Your task to perform on an android device: change text size in settings app Image 0: 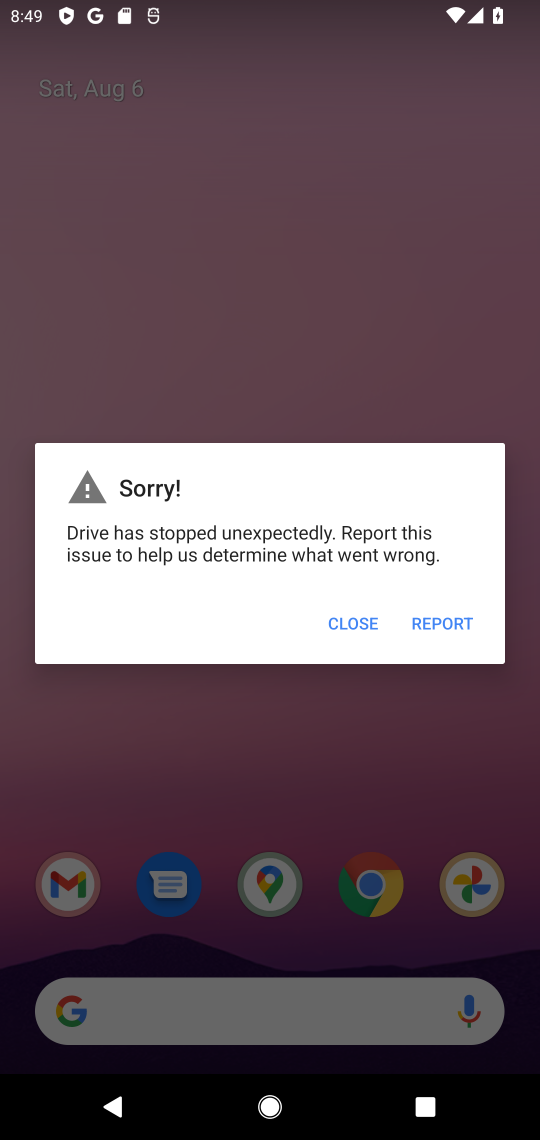
Step 0: press home button
Your task to perform on an android device: change text size in settings app Image 1: 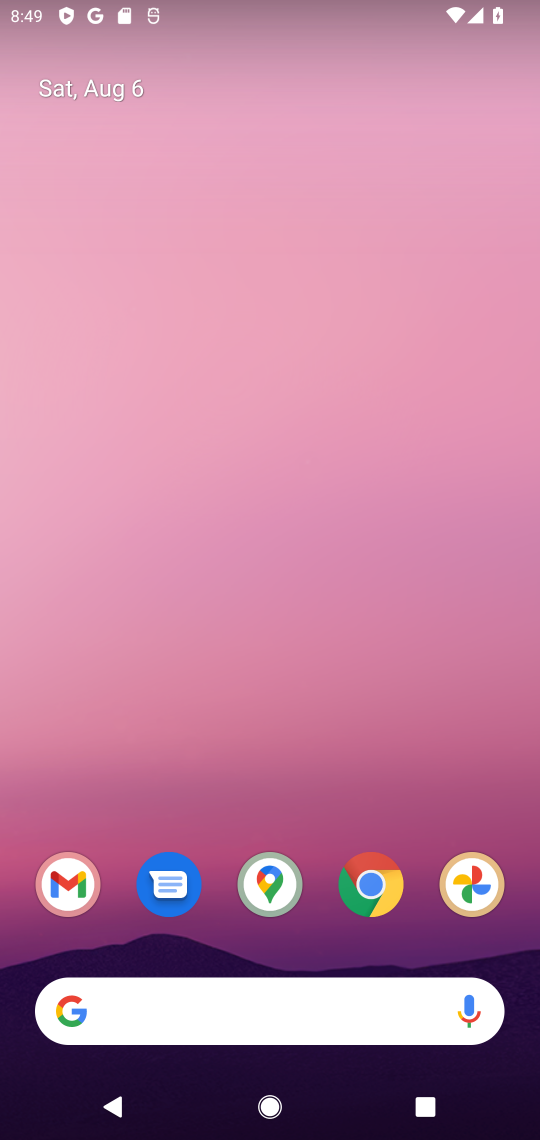
Step 1: drag from (398, 948) to (363, 99)
Your task to perform on an android device: change text size in settings app Image 2: 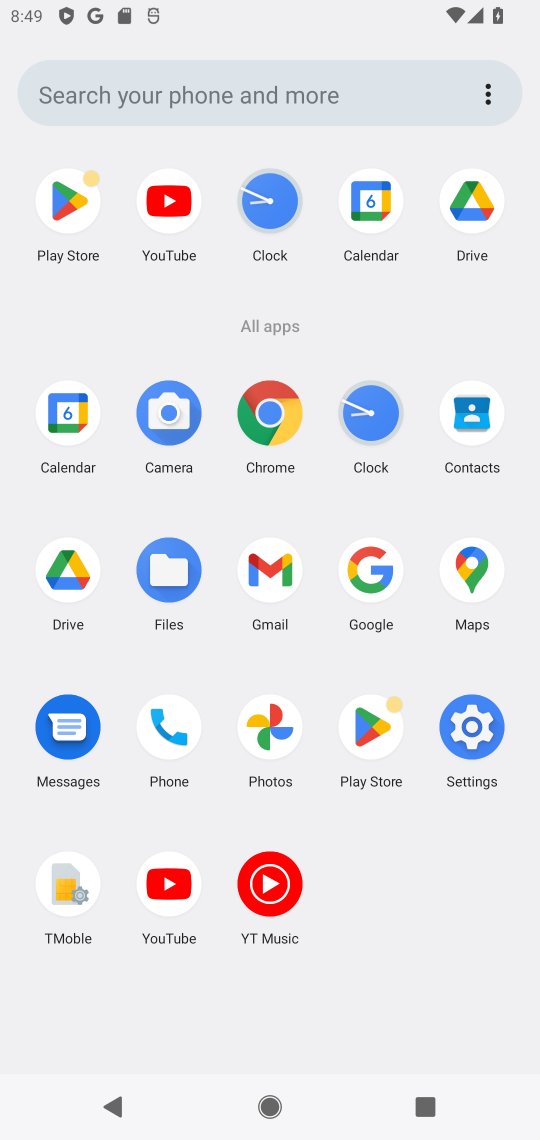
Step 2: click (472, 726)
Your task to perform on an android device: change text size in settings app Image 3: 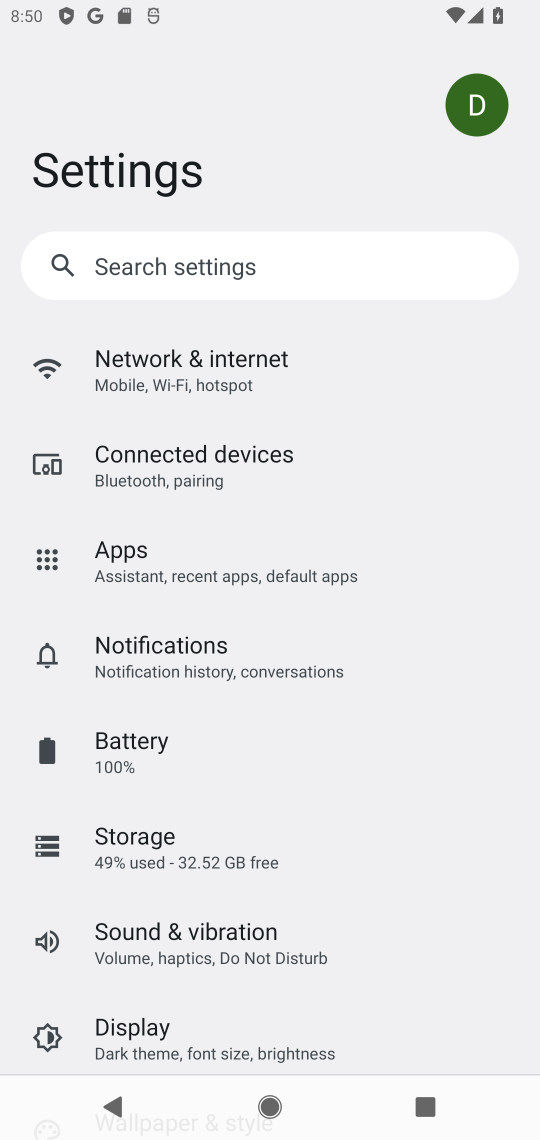
Step 3: drag from (379, 992) to (352, 552)
Your task to perform on an android device: change text size in settings app Image 4: 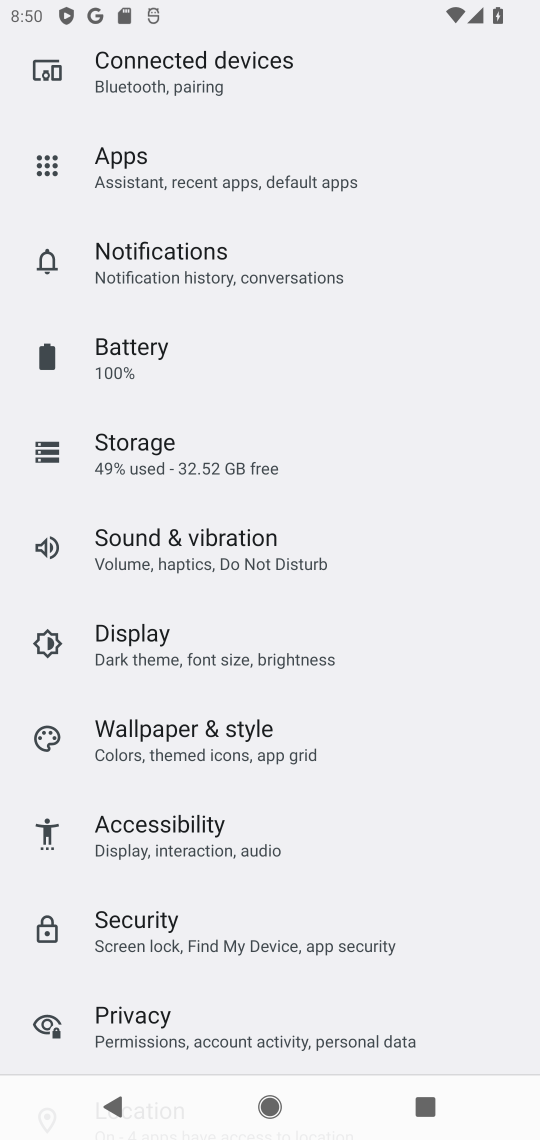
Step 4: click (164, 640)
Your task to perform on an android device: change text size in settings app Image 5: 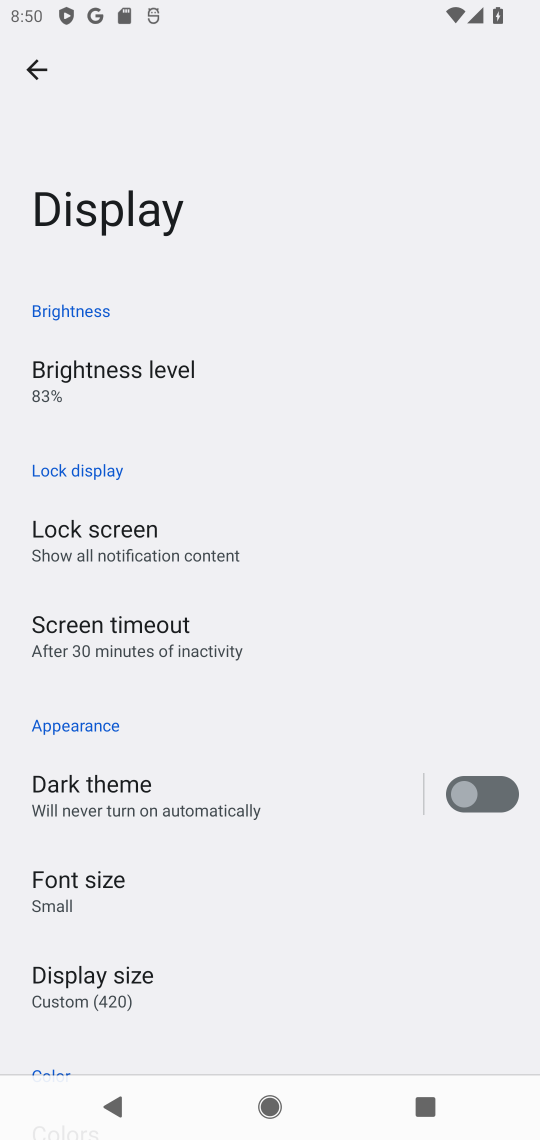
Step 5: drag from (324, 974) to (322, 578)
Your task to perform on an android device: change text size in settings app Image 6: 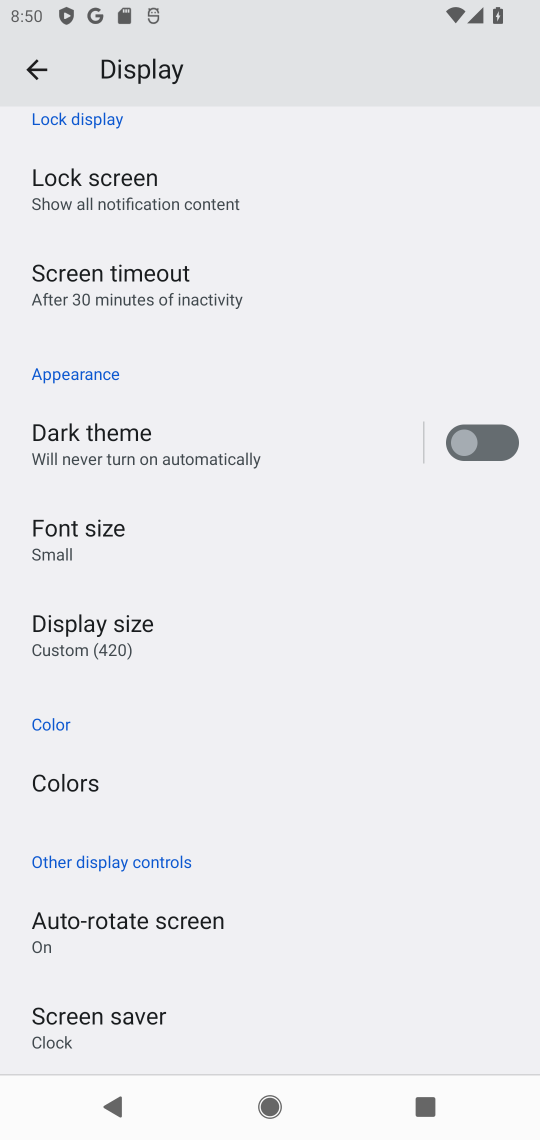
Step 6: click (80, 532)
Your task to perform on an android device: change text size in settings app Image 7: 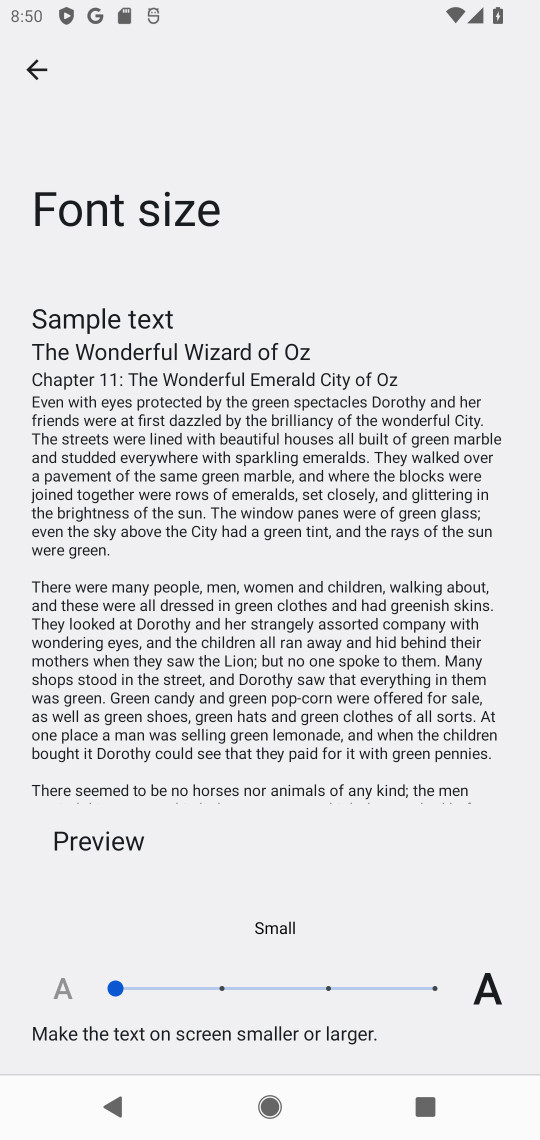
Step 7: click (324, 985)
Your task to perform on an android device: change text size in settings app Image 8: 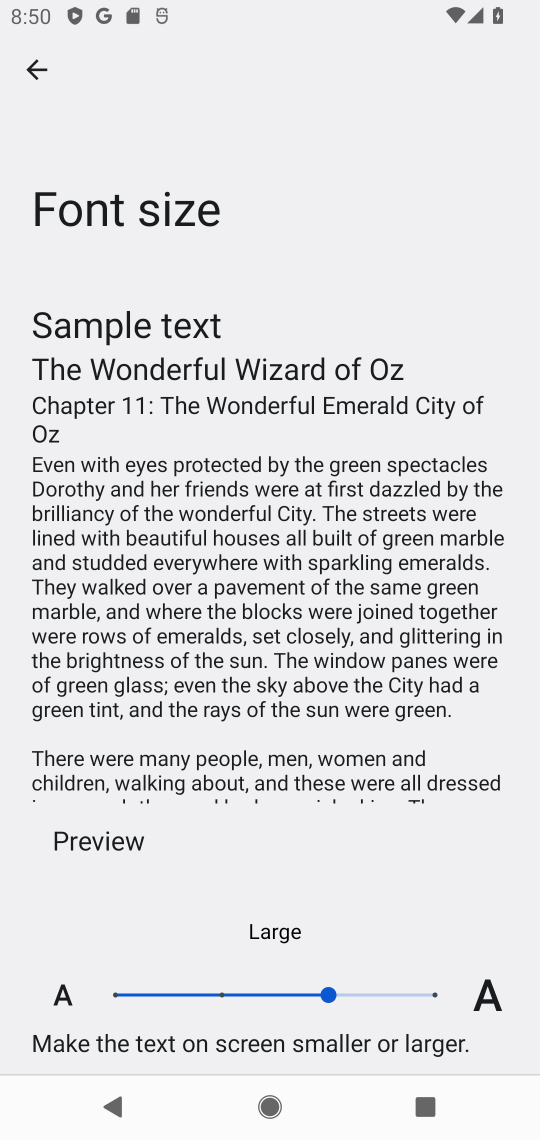
Step 8: task complete